Your task to perform on an android device: turn off improve location accuracy Image 0: 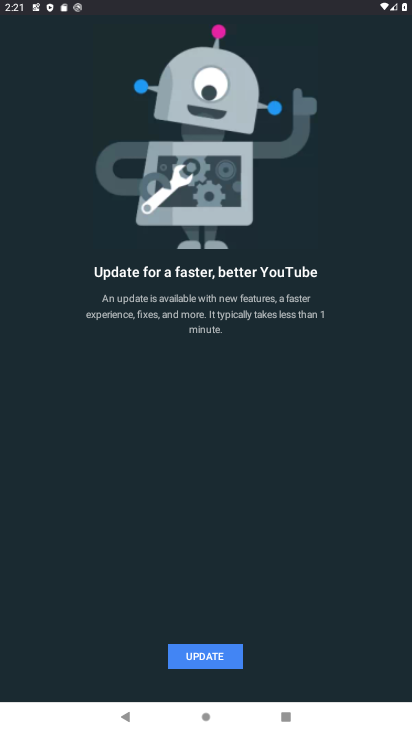
Step 0: press back button
Your task to perform on an android device: turn off improve location accuracy Image 1: 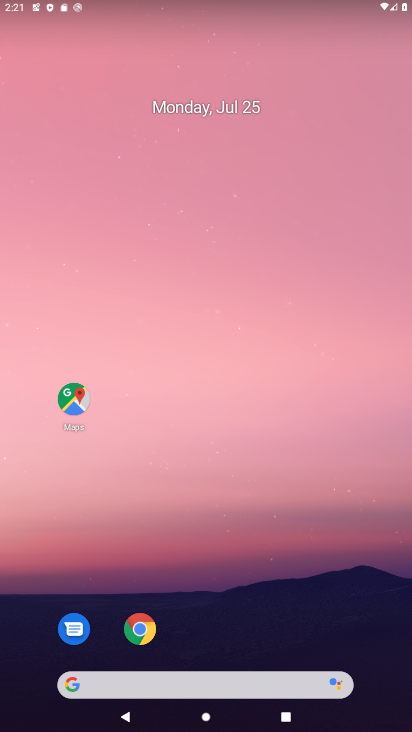
Step 1: drag from (80, 563) to (259, 144)
Your task to perform on an android device: turn off improve location accuracy Image 2: 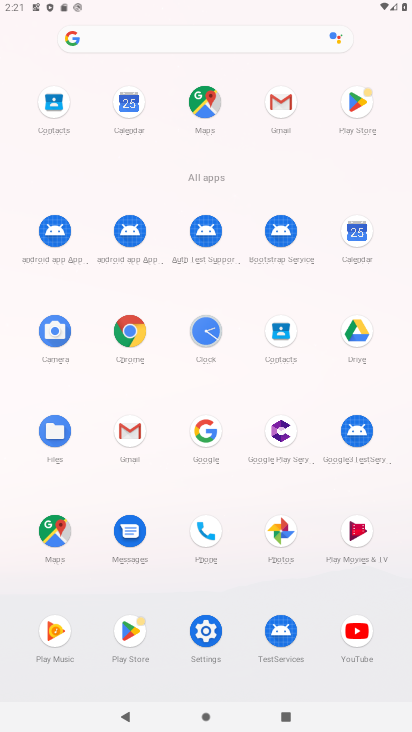
Step 2: click (210, 630)
Your task to perform on an android device: turn off improve location accuracy Image 3: 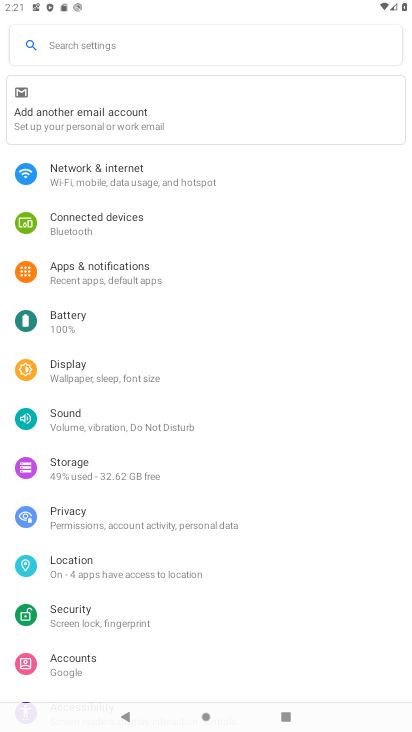
Step 3: click (94, 560)
Your task to perform on an android device: turn off improve location accuracy Image 4: 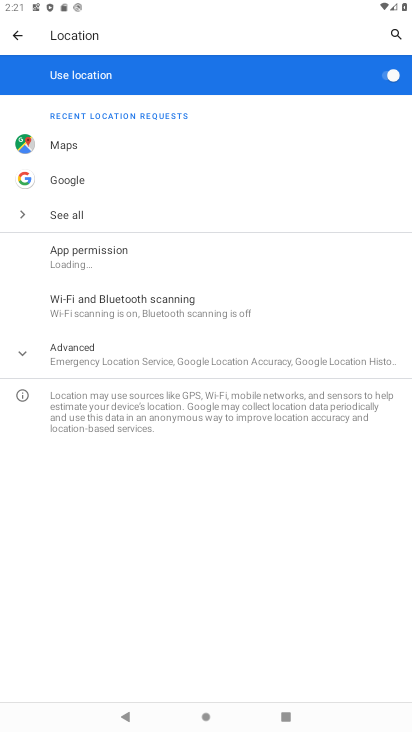
Step 4: click (81, 366)
Your task to perform on an android device: turn off improve location accuracy Image 5: 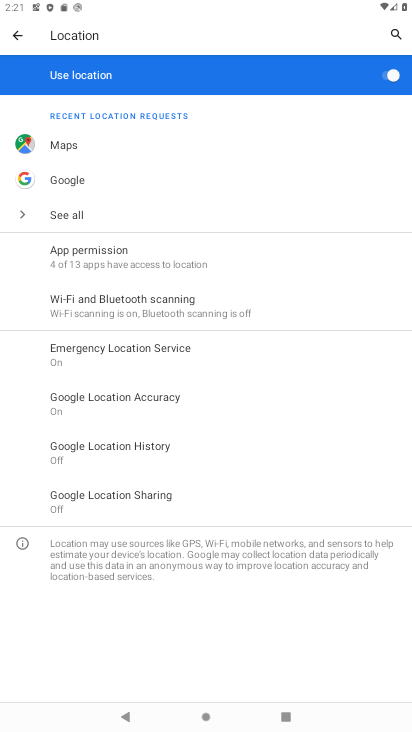
Step 5: click (137, 414)
Your task to perform on an android device: turn off improve location accuracy Image 6: 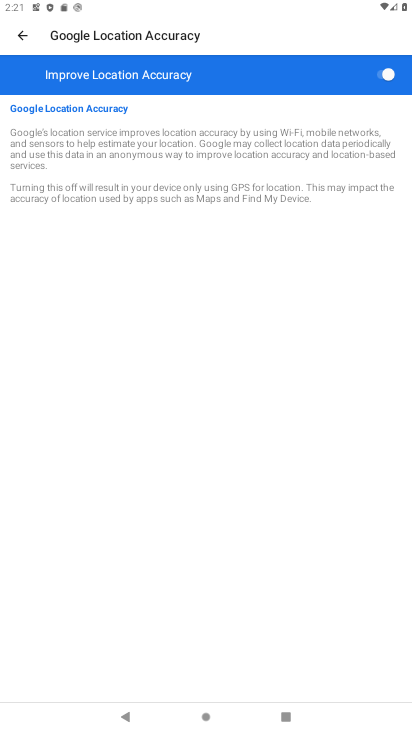
Step 6: click (389, 76)
Your task to perform on an android device: turn off improve location accuracy Image 7: 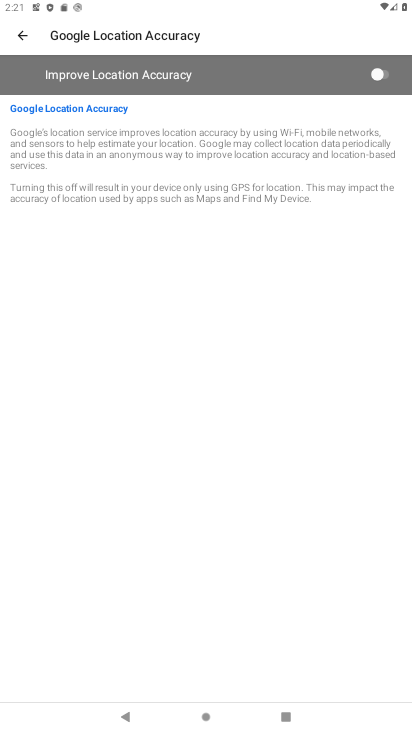
Step 7: task complete